Your task to perform on an android device: Add logitech g pro to the cart on newegg.com, then select checkout. Image 0: 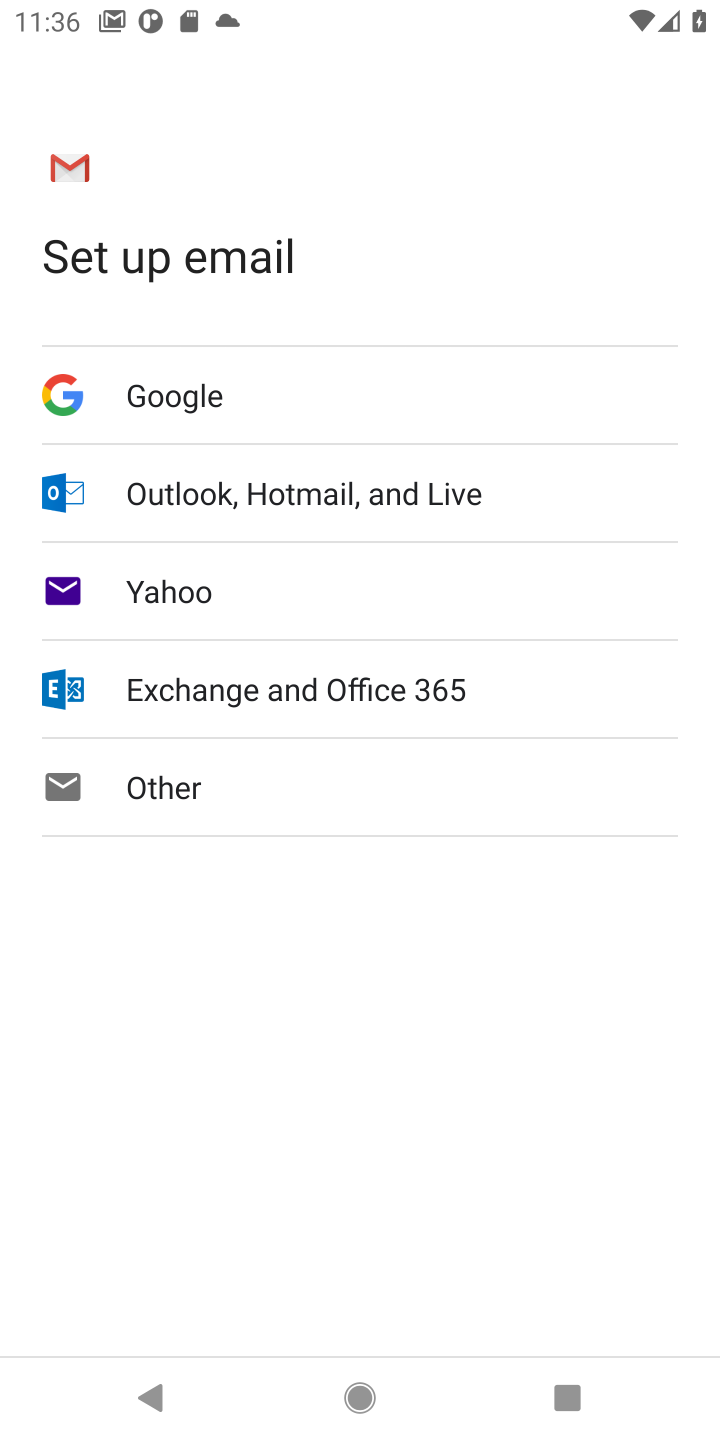
Step 0: press back button
Your task to perform on an android device: Add logitech g pro to the cart on newegg.com, then select checkout. Image 1: 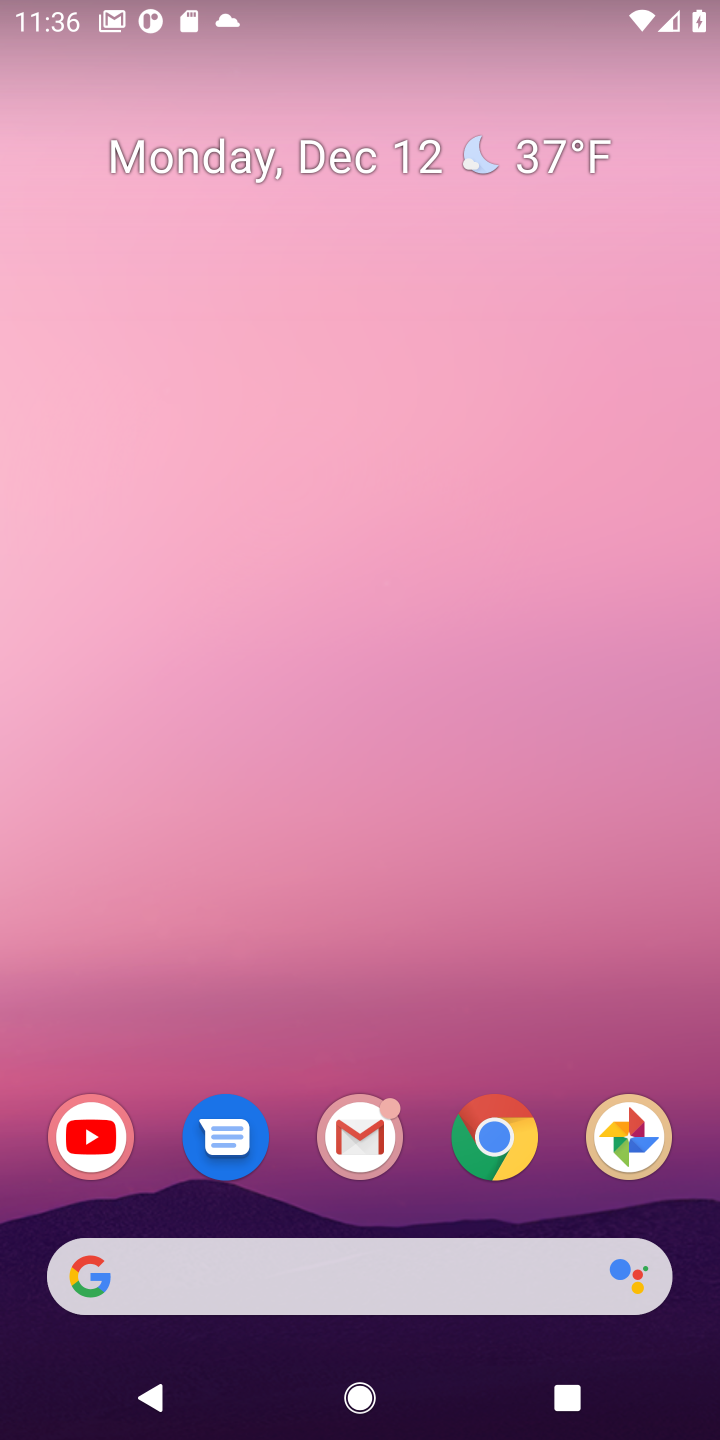
Step 1: click (380, 1250)
Your task to perform on an android device: Add logitech g pro to the cart on newegg.com, then select checkout. Image 2: 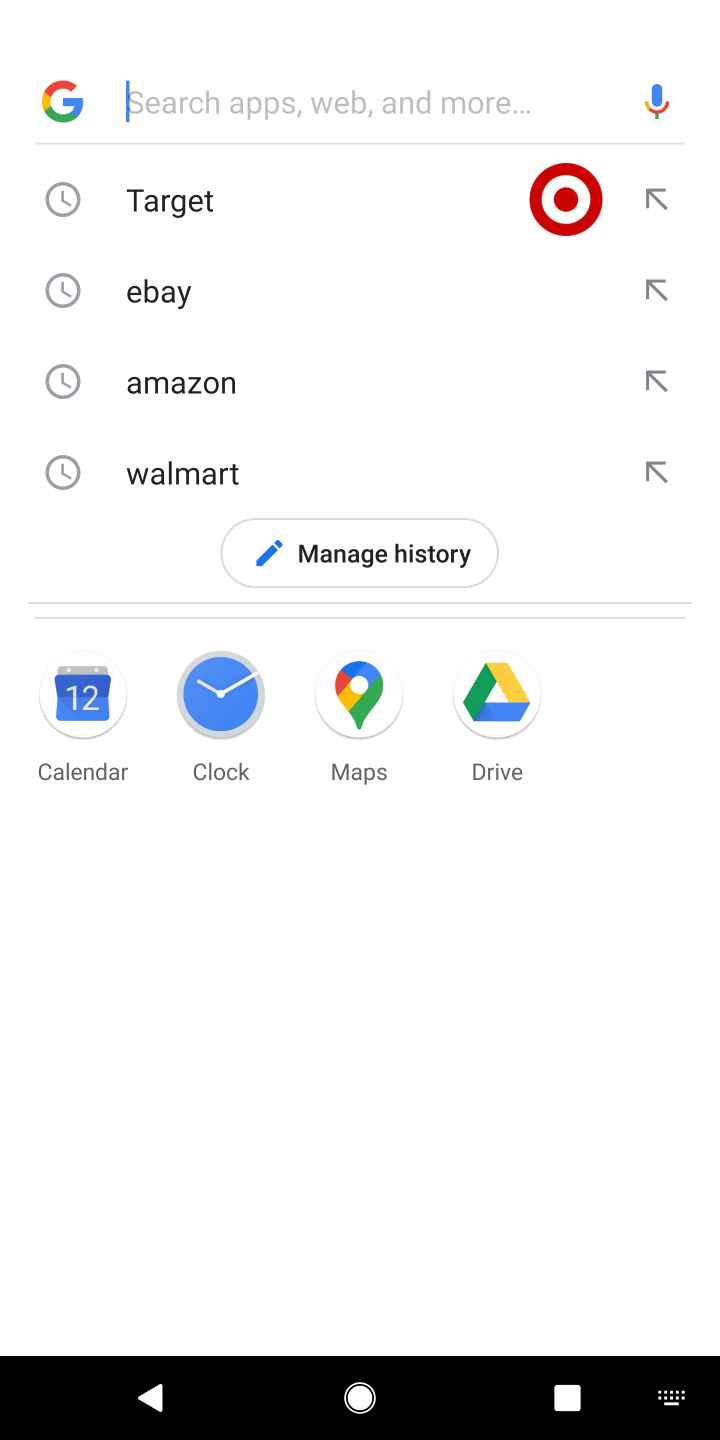
Step 2: type "newegg"
Your task to perform on an android device: Add logitech g pro to the cart on newegg.com, then select checkout. Image 3: 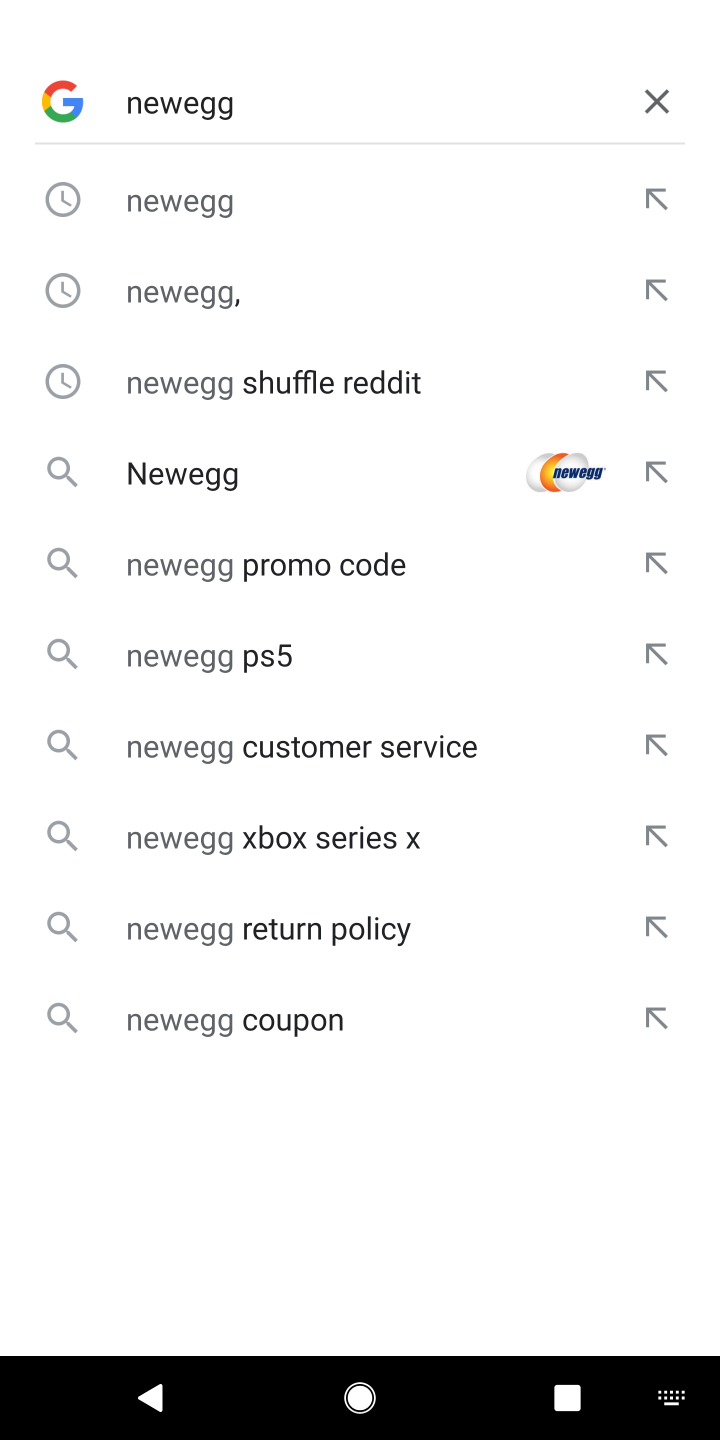
Step 3: click (172, 209)
Your task to perform on an android device: Add logitech g pro to the cart on newegg.com, then select checkout. Image 4: 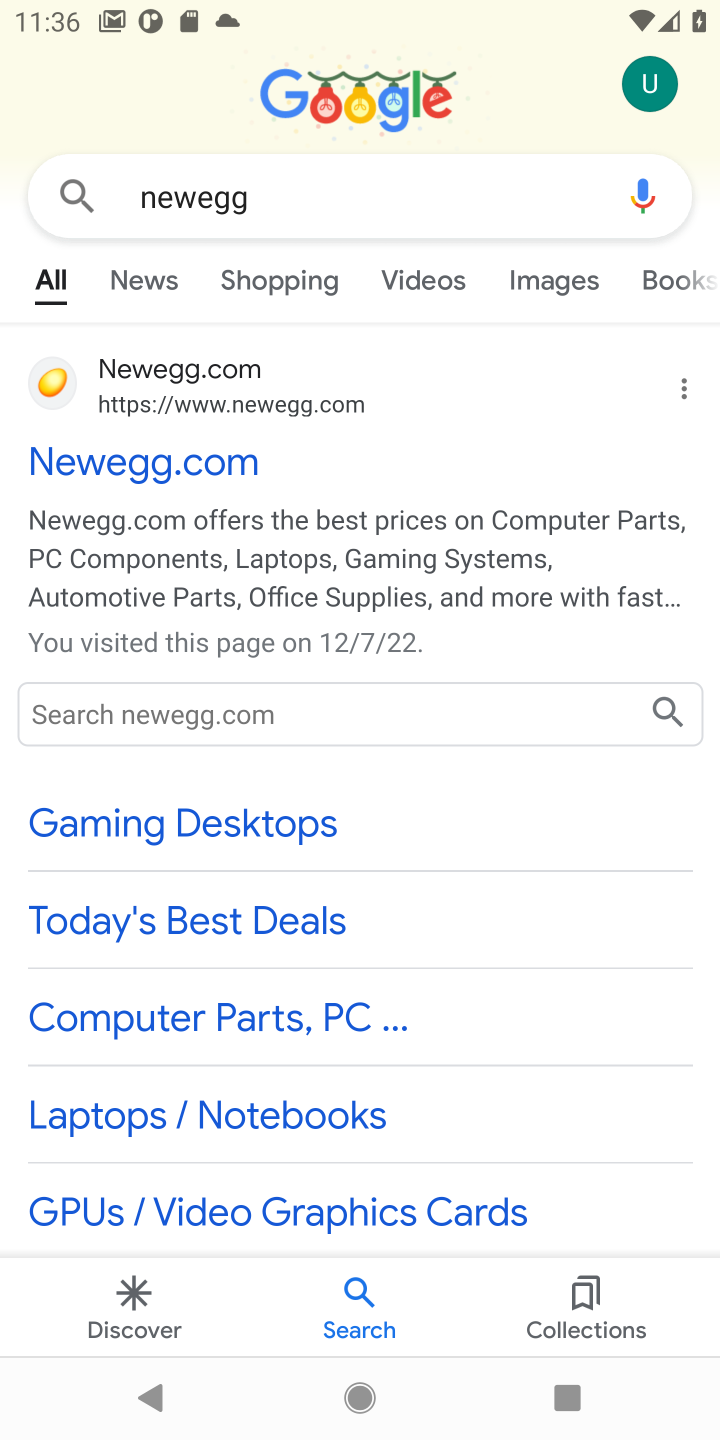
Step 4: click (123, 480)
Your task to perform on an android device: Add logitech g pro to the cart on newegg.com, then select checkout. Image 5: 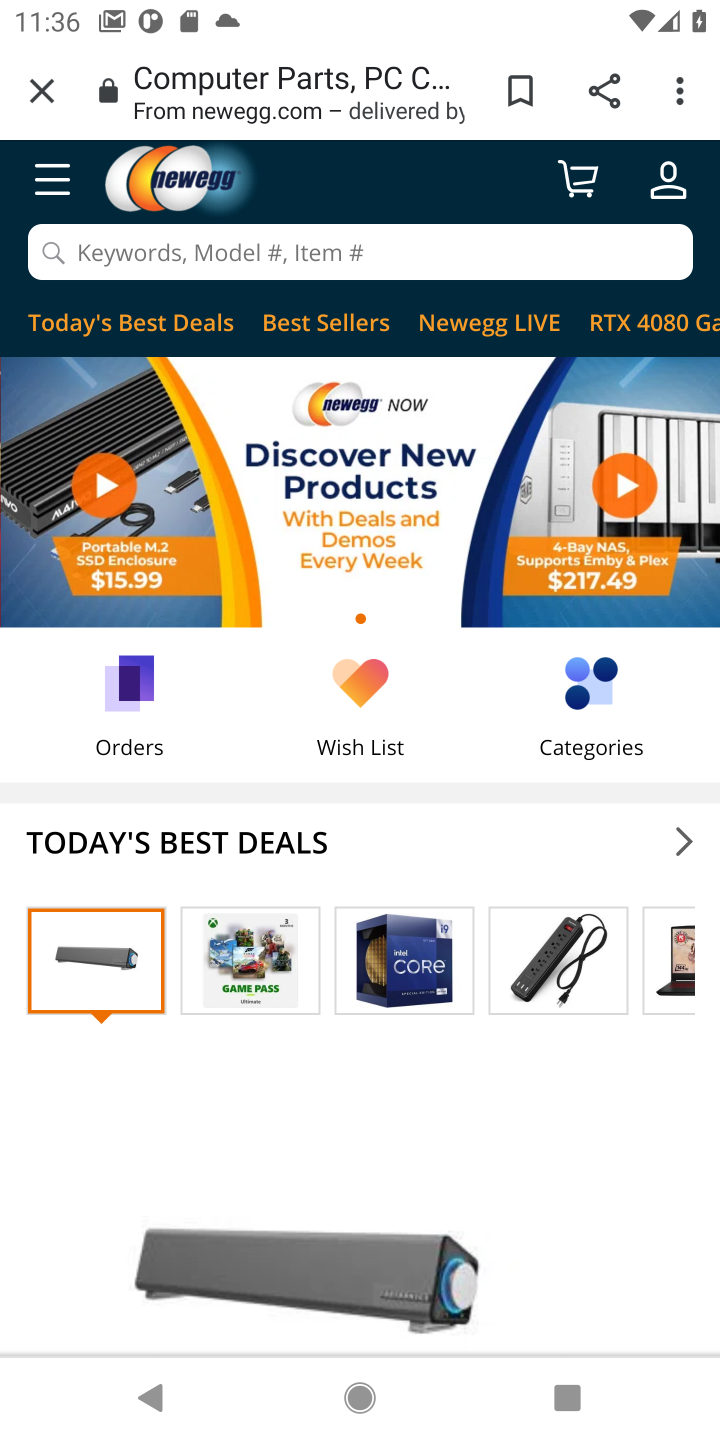
Step 5: task complete